Your task to perform on an android device: Find coffee shops on Maps Image 0: 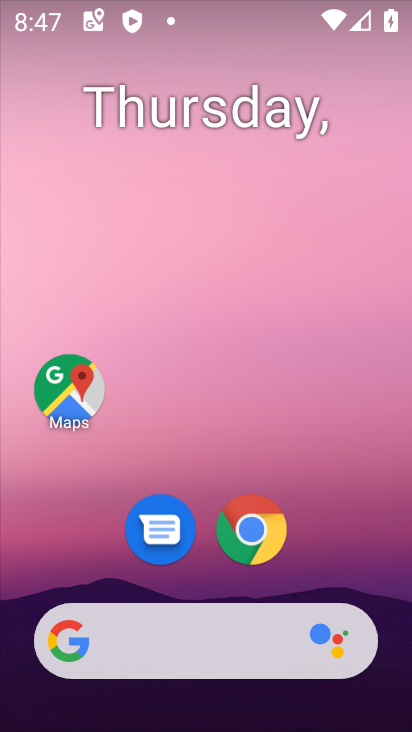
Step 0: drag from (201, 729) to (217, 119)
Your task to perform on an android device: Find coffee shops on Maps Image 1: 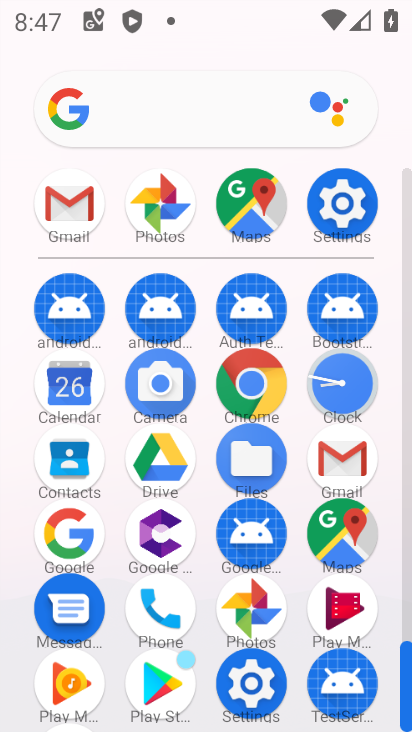
Step 1: click (358, 548)
Your task to perform on an android device: Find coffee shops on Maps Image 2: 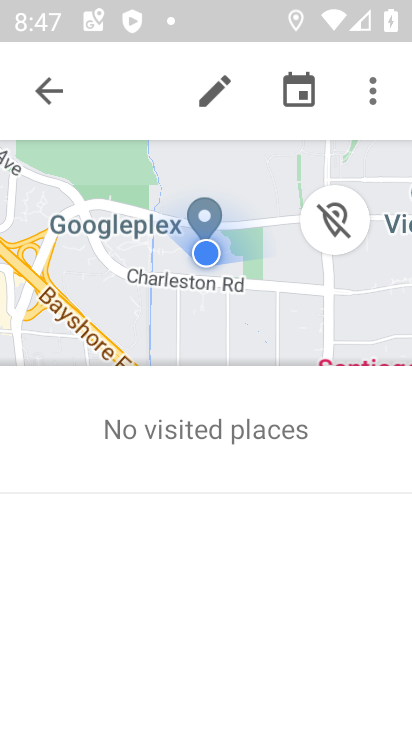
Step 2: click (42, 83)
Your task to perform on an android device: Find coffee shops on Maps Image 3: 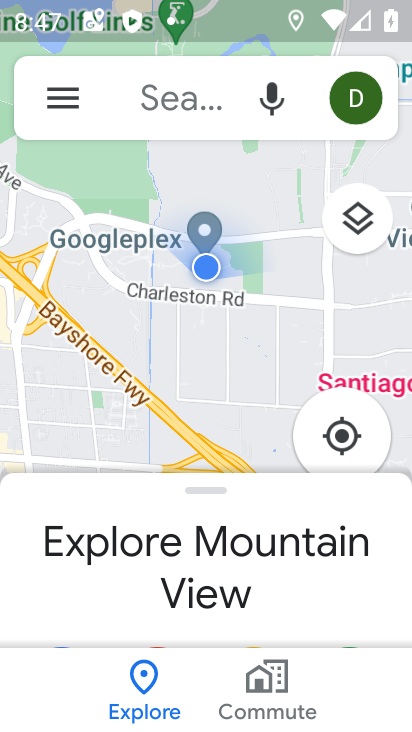
Step 3: click (189, 107)
Your task to perform on an android device: Find coffee shops on Maps Image 4: 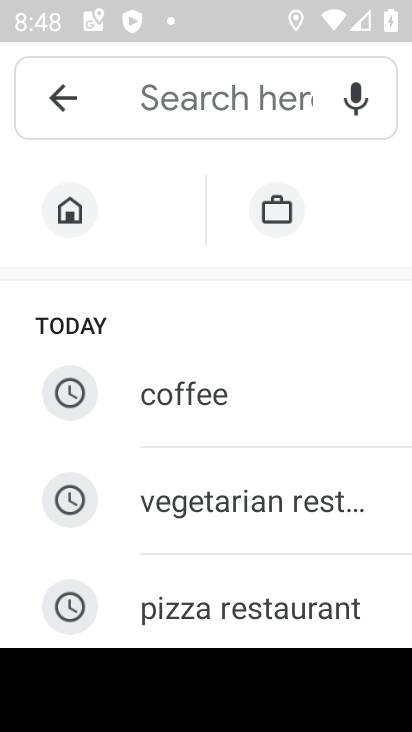
Step 4: type "coffee shops"
Your task to perform on an android device: Find coffee shops on Maps Image 5: 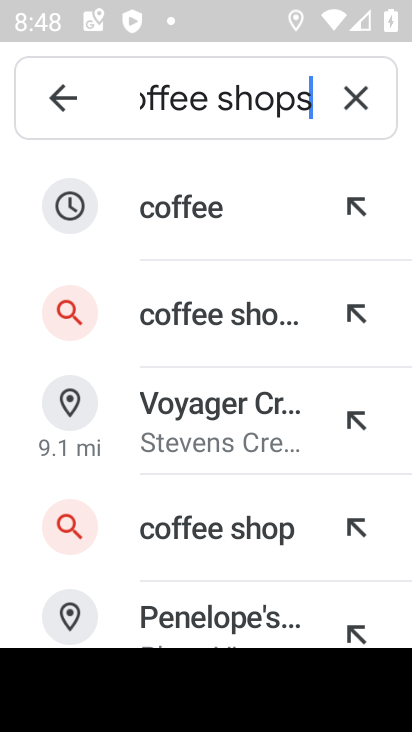
Step 5: click (186, 307)
Your task to perform on an android device: Find coffee shops on Maps Image 6: 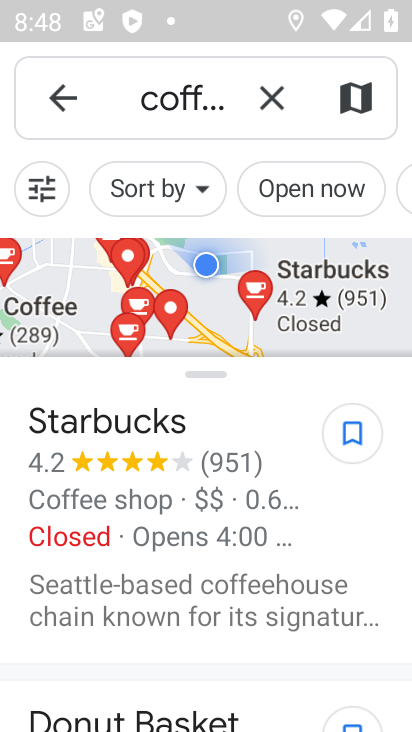
Step 6: task complete